Your task to perform on an android device: Open Youtube and go to the subscriptions tab Image 0: 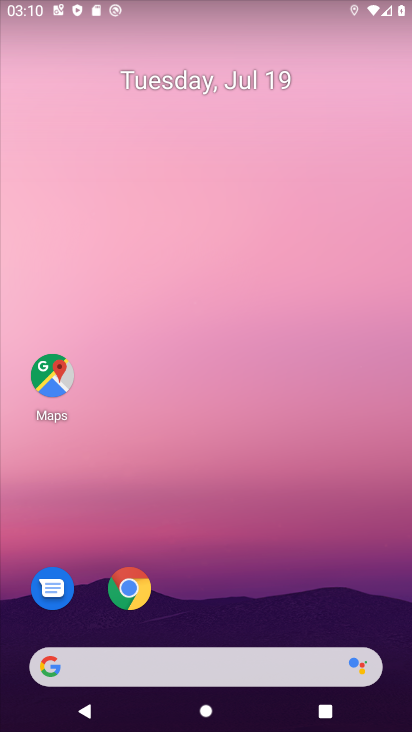
Step 0: drag from (248, 551) to (183, 140)
Your task to perform on an android device: Open Youtube and go to the subscriptions tab Image 1: 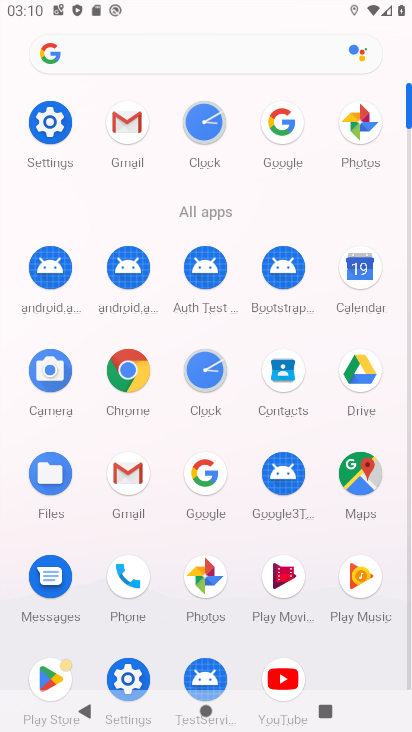
Step 1: click (285, 670)
Your task to perform on an android device: Open Youtube and go to the subscriptions tab Image 2: 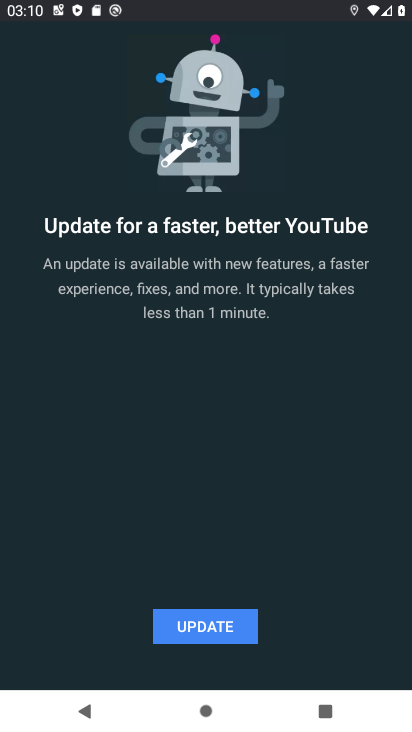
Step 2: click (196, 617)
Your task to perform on an android device: Open Youtube and go to the subscriptions tab Image 3: 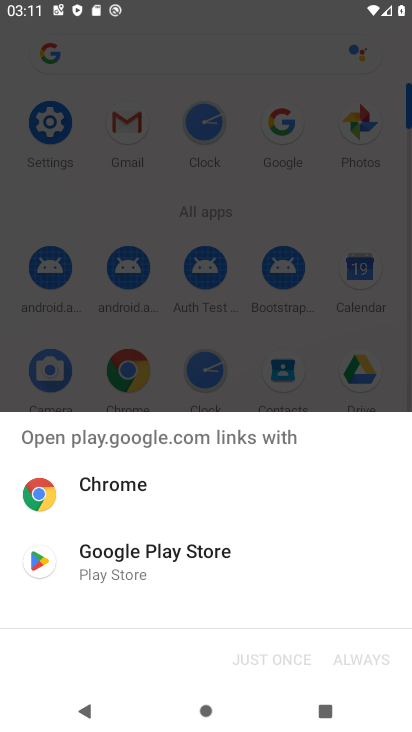
Step 3: click (171, 549)
Your task to perform on an android device: Open Youtube and go to the subscriptions tab Image 4: 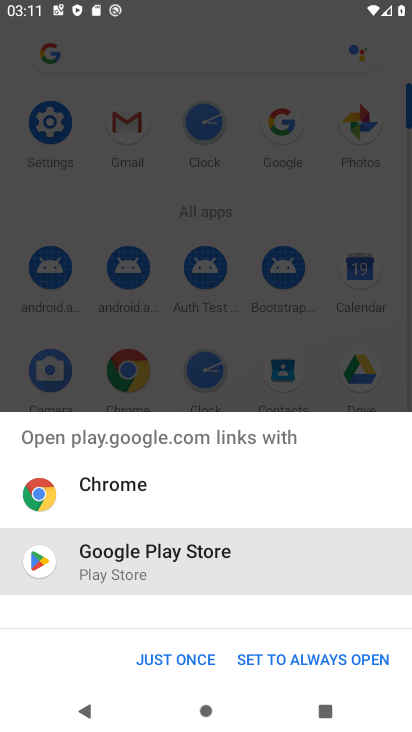
Step 4: click (196, 655)
Your task to perform on an android device: Open Youtube and go to the subscriptions tab Image 5: 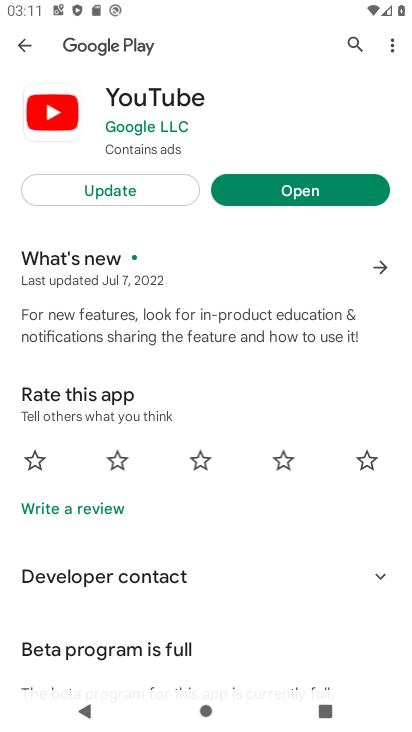
Step 5: click (137, 188)
Your task to perform on an android device: Open Youtube and go to the subscriptions tab Image 6: 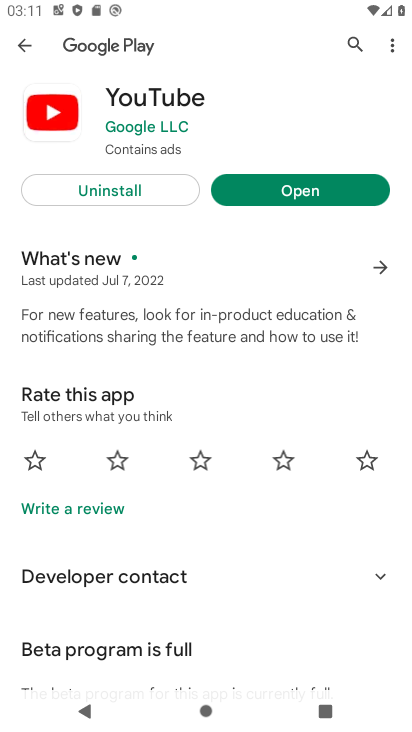
Step 6: click (293, 188)
Your task to perform on an android device: Open Youtube and go to the subscriptions tab Image 7: 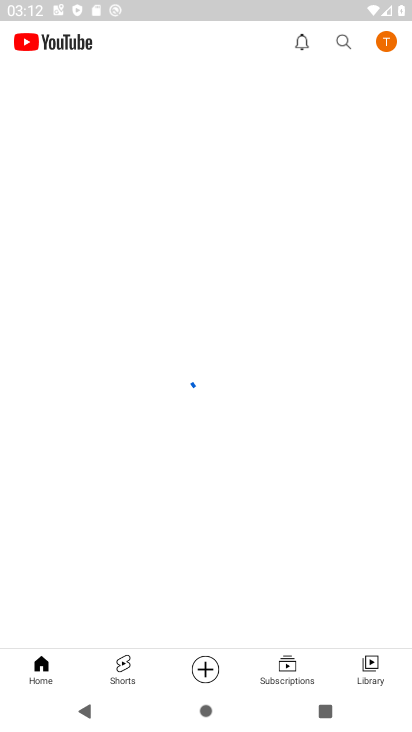
Step 7: click (248, 669)
Your task to perform on an android device: Open Youtube and go to the subscriptions tab Image 8: 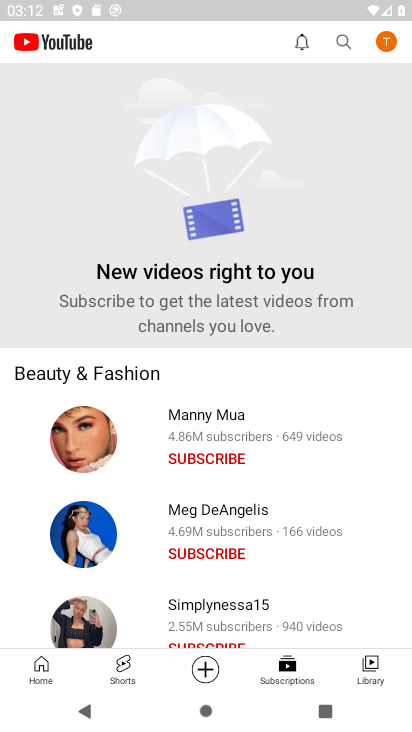
Step 8: task complete